Your task to perform on an android device: Open Google Maps and go to "Timeline" Image 0: 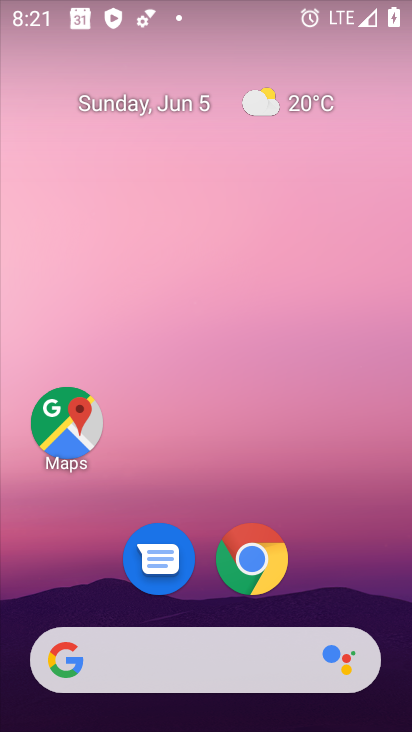
Step 0: click (67, 430)
Your task to perform on an android device: Open Google Maps and go to "Timeline" Image 1: 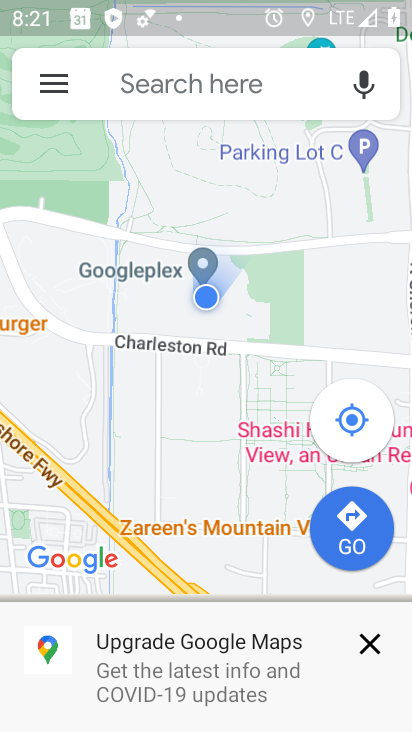
Step 1: click (34, 74)
Your task to perform on an android device: Open Google Maps and go to "Timeline" Image 2: 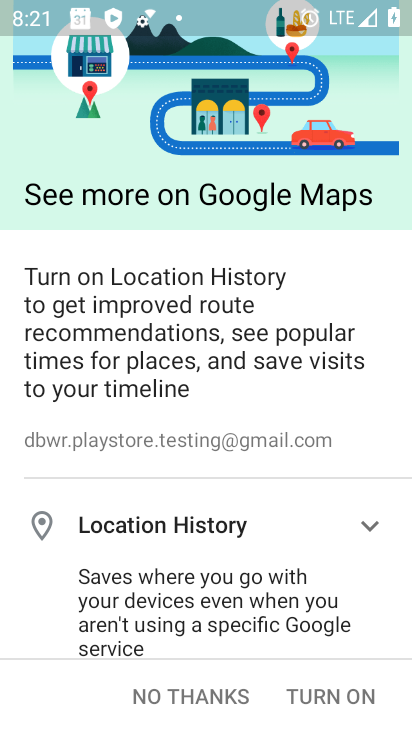
Step 2: click (214, 681)
Your task to perform on an android device: Open Google Maps and go to "Timeline" Image 3: 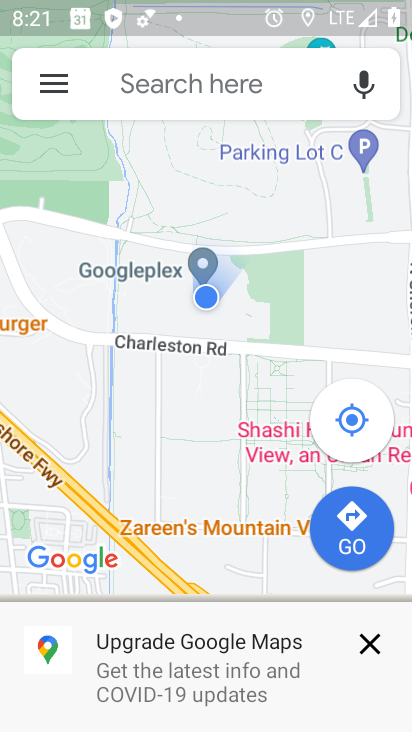
Step 3: click (46, 76)
Your task to perform on an android device: Open Google Maps and go to "Timeline" Image 4: 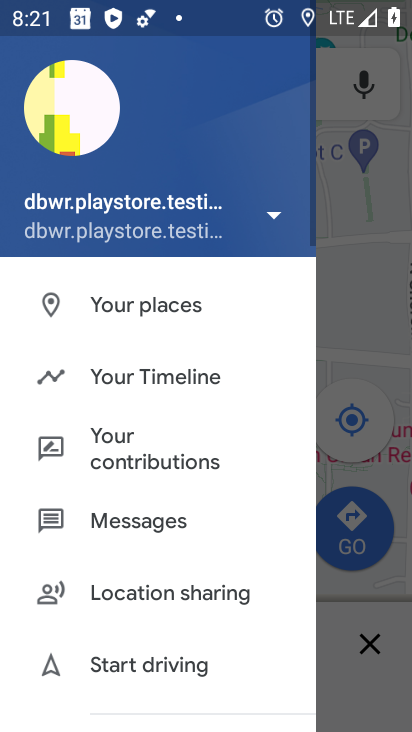
Step 4: click (159, 387)
Your task to perform on an android device: Open Google Maps and go to "Timeline" Image 5: 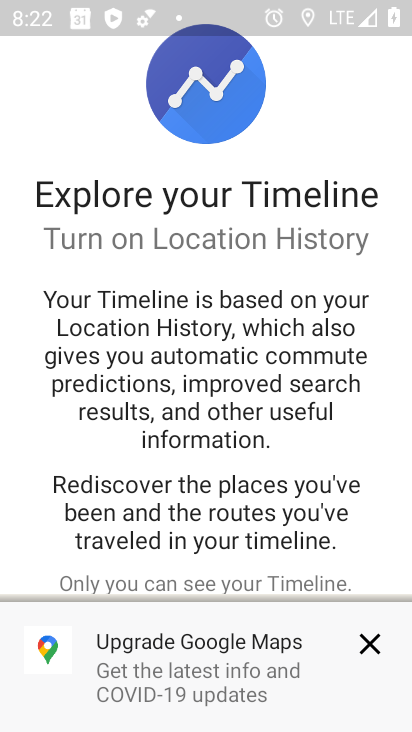
Step 5: click (376, 636)
Your task to perform on an android device: Open Google Maps and go to "Timeline" Image 6: 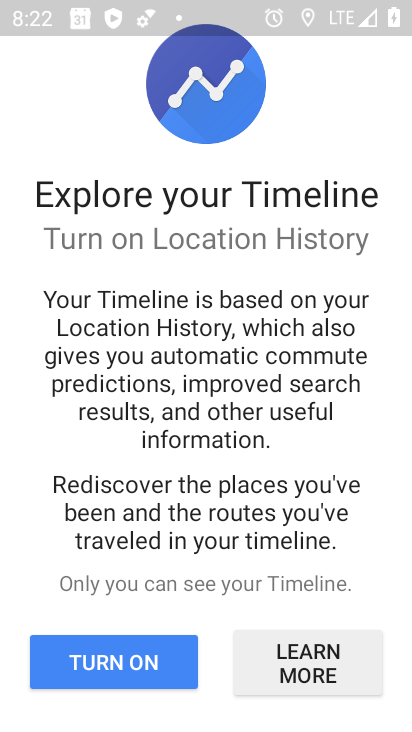
Step 6: click (168, 668)
Your task to perform on an android device: Open Google Maps and go to "Timeline" Image 7: 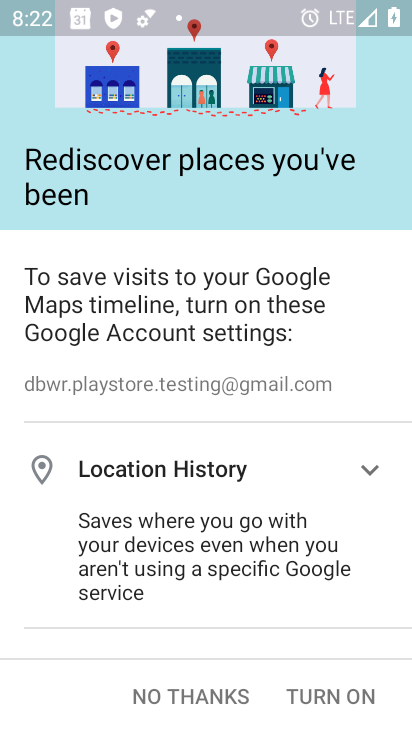
Step 7: click (155, 696)
Your task to perform on an android device: Open Google Maps and go to "Timeline" Image 8: 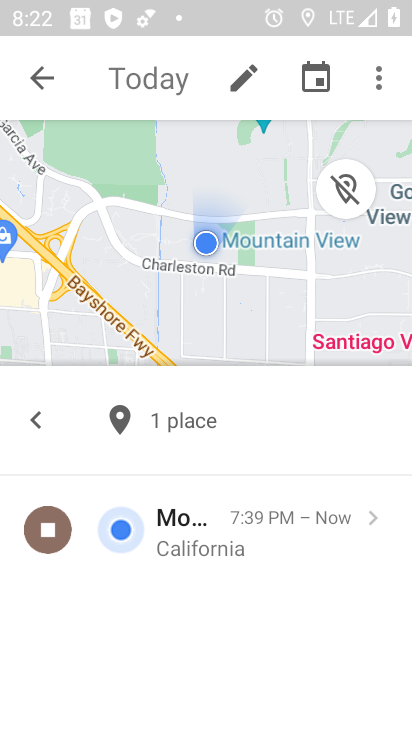
Step 8: task complete